Your task to perform on an android device: turn on translation in the chrome app Image 0: 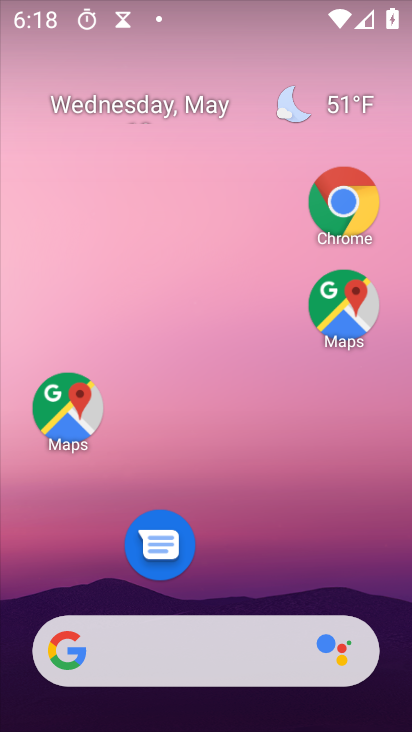
Step 0: drag from (208, 588) to (232, 93)
Your task to perform on an android device: turn on translation in the chrome app Image 1: 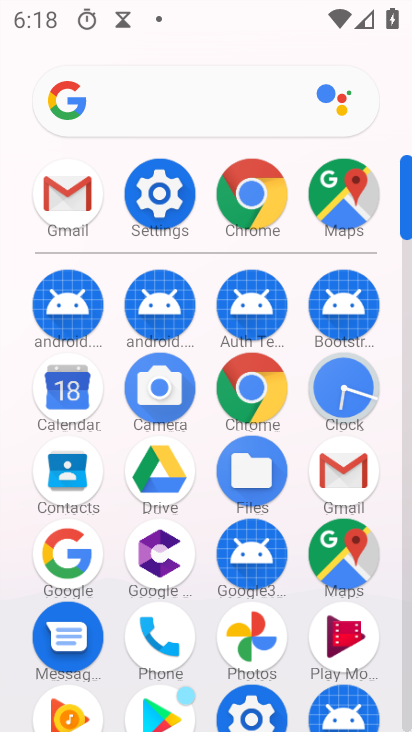
Step 1: click (249, 379)
Your task to perform on an android device: turn on translation in the chrome app Image 2: 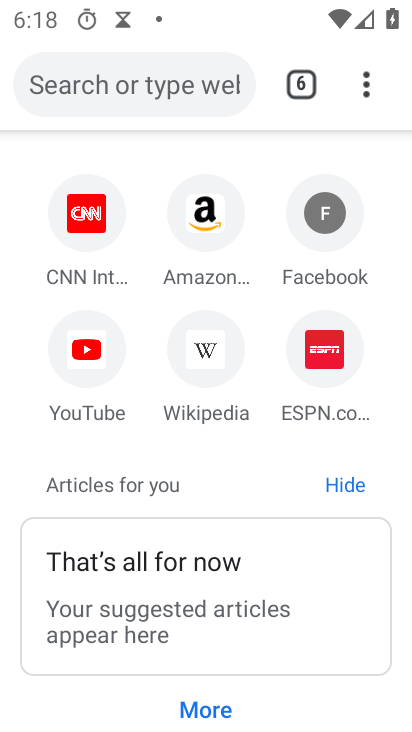
Step 2: click (362, 81)
Your task to perform on an android device: turn on translation in the chrome app Image 3: 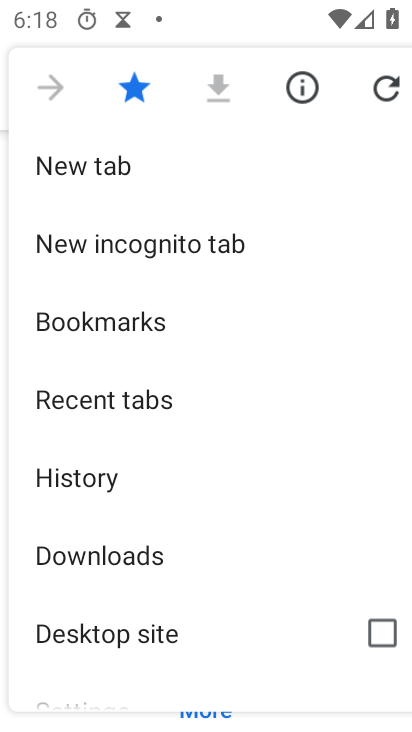
Step 3: drag from (129, 589) to (139, 308)
Your task to perform on an android device: turn on translation in the chrome app Image 4: 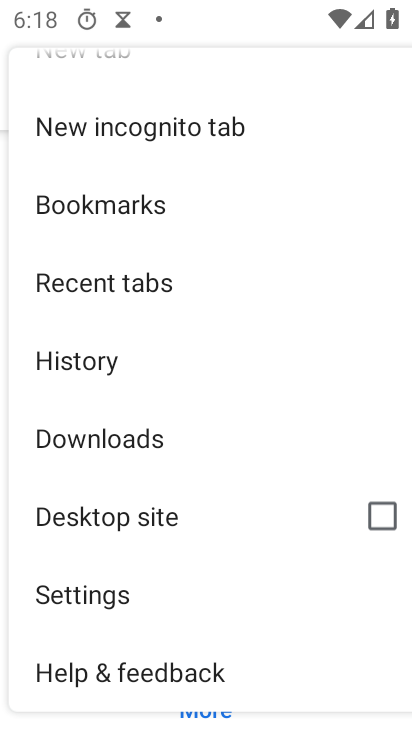
Step 4: click (95, 595)
Your task to perform on an android device: turn on translation in the chrome app Image 5: 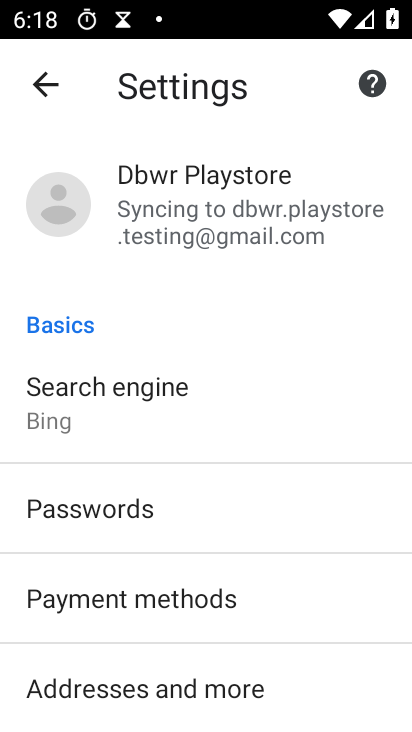
Step 5: drag from (158, 515) to (163, 340)
Your task to perform on an android device: turn on translation in the chrome app Image 6: 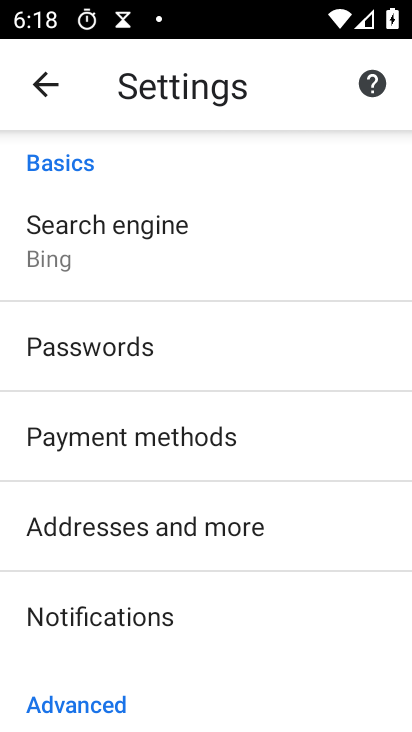
Step 6: drag from (152, 619) to (183, 217)
Your task to perform on an android device: turn on translation in the chrome app Image 7: 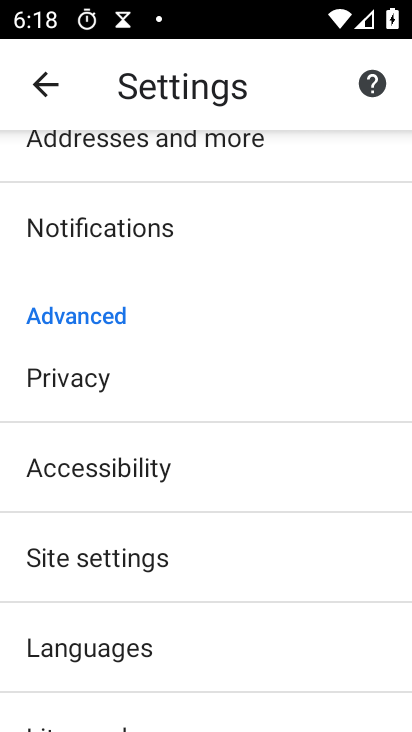
Step 7: click (95, 655)
Your task to perform on an android device: turn on translation in the chrome app Image 8: 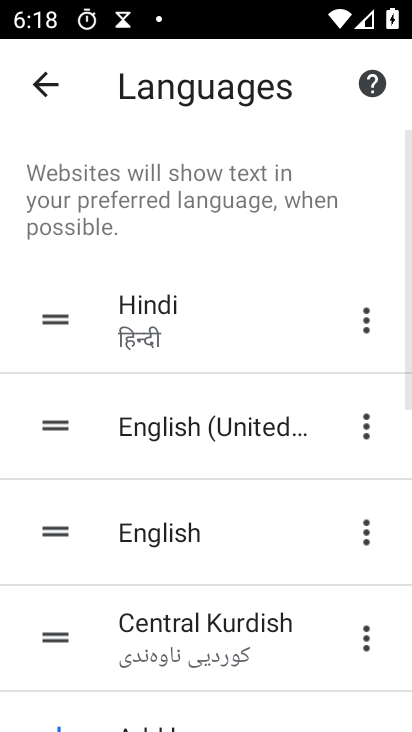
Step 8: drag from (184, 579) to (252, 309)
Your task to perform on an android device: turn on translation in the chrome app Image 9: 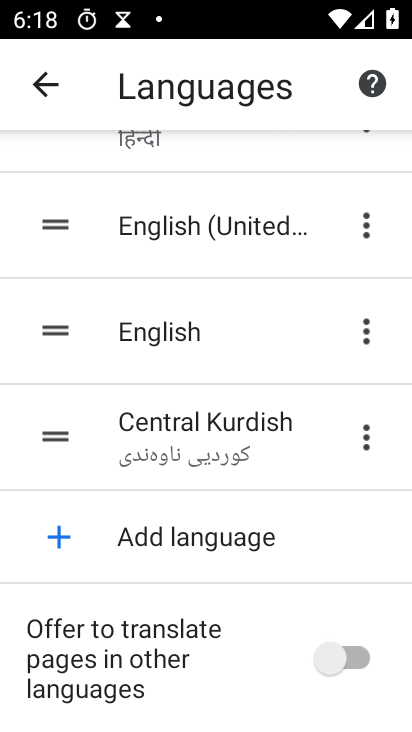
Step 9: click (366, 671)
Your task to perform on an android device: turn on translation in the chrome app Image 10: 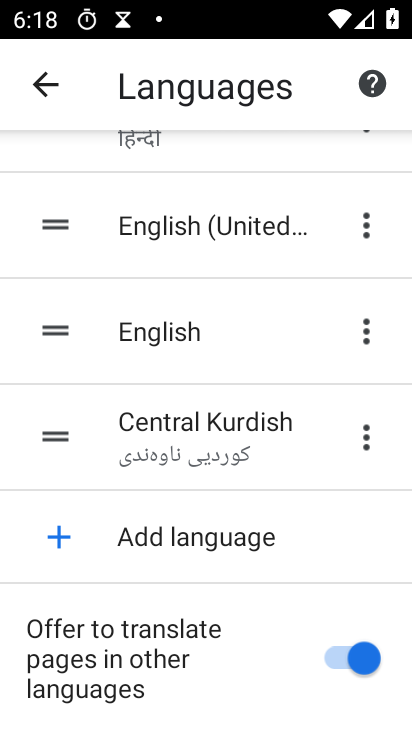
Step 10: task complete